Your task to perform on an android device: turn smart compose on in the gmail app Image 0: 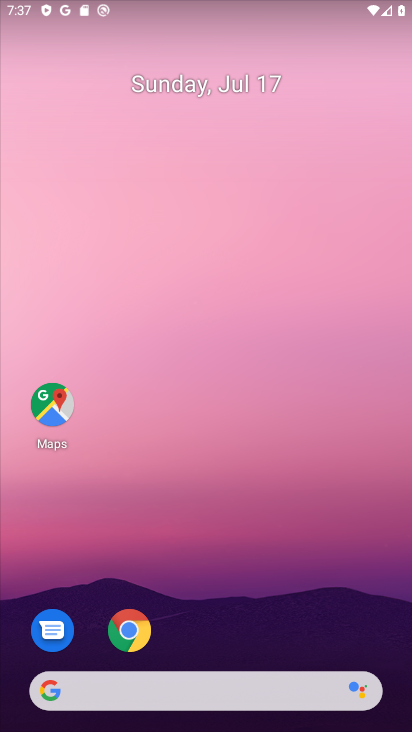
Step 0: drag from (179, 419) to (182, 263)
Your task to perform on an android device: turn smart compose on in the gmail app Image 1: 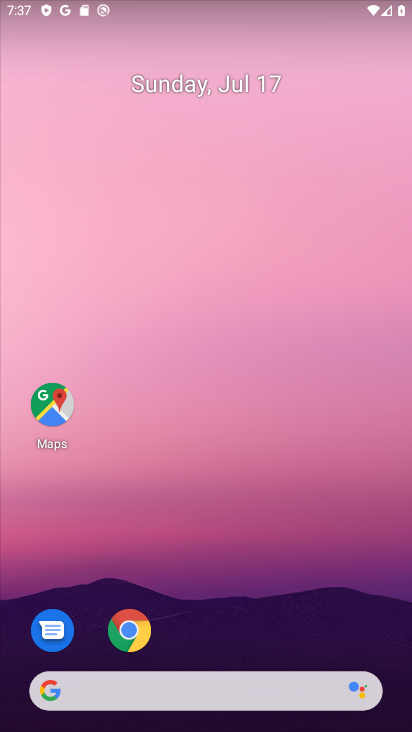
Step 1: drag from (215, 619) to (235, 179)
Your task to perform on an android device: turn smart compose on in the gmail app Image 2: 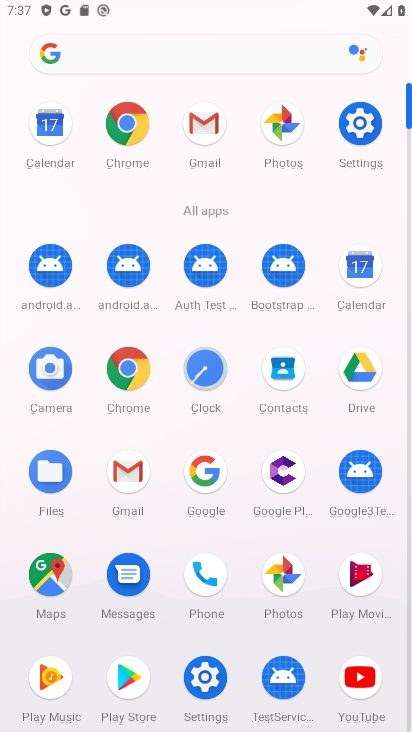
Step 2: click (199, 116)
Your task to perform on an android device: turn smart compose on in the gmail app Image 3: 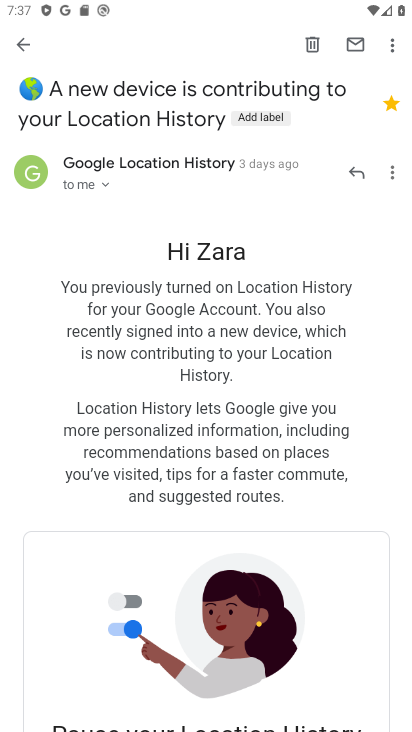
Step 3: click (15, 43)
Your task to perform on an android device: turn smart compose on in the gmail app Image 4: 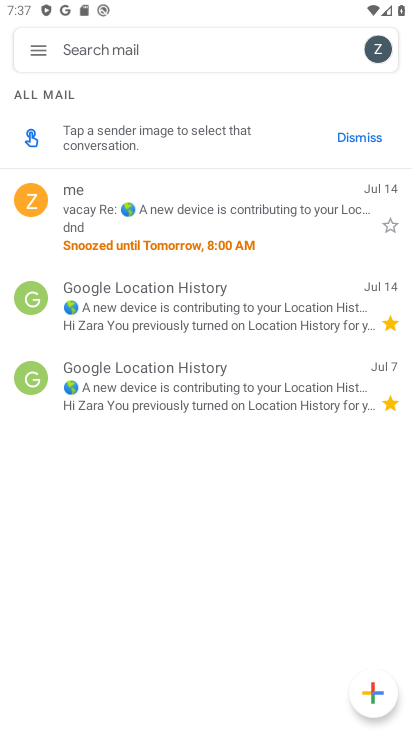
Step 4: click (40, 51)
Your task to perform on an android device: turn smart compose on in the gmail app Image 5: 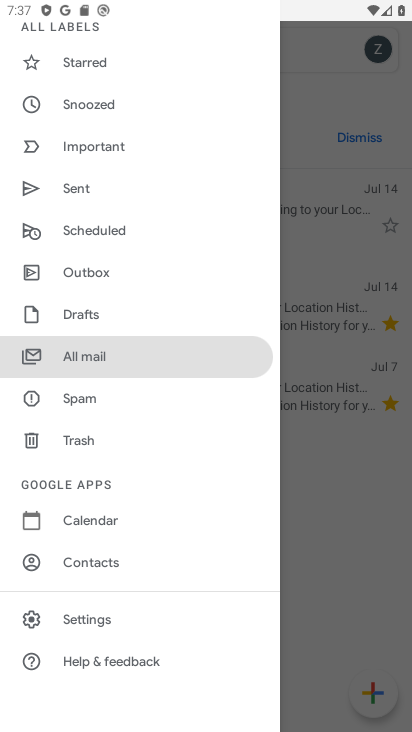
Step 5: click (96, 612)
Your task to perform on an android device: turn smart compose on in the gmail app Image 6: 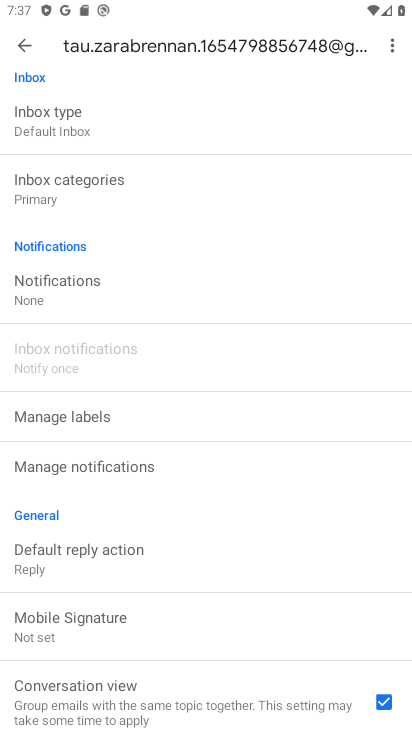
Step 6: task complete